Your task to perform on an android device: Search for "usb-a" on bestbuy.com, select the first entry, and add it to the cart. Image 0: 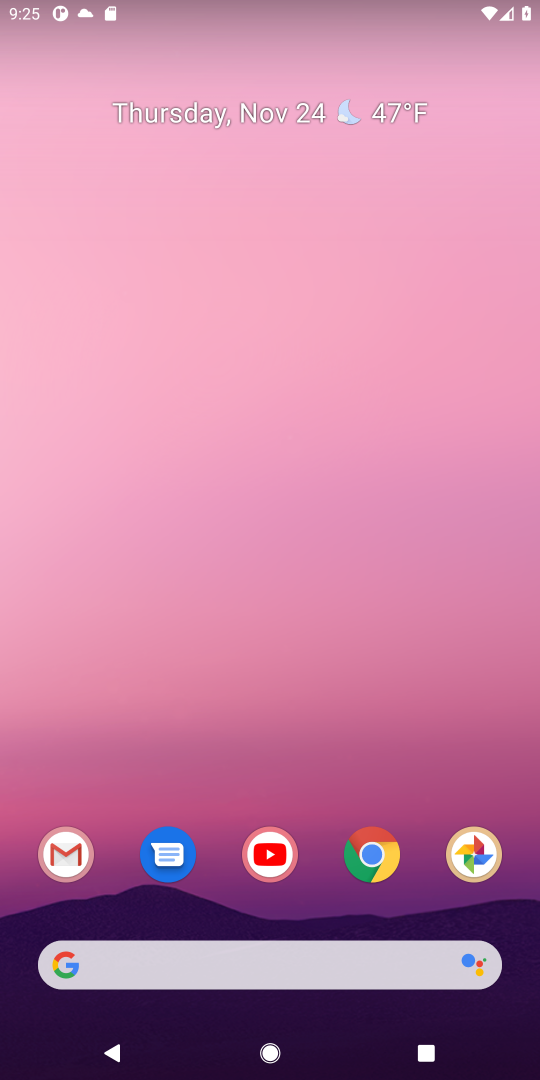
Step 0: click (375, 850)
Your task to perform on an android device: Search for "usb-a" on bestbuy.com, select the first entry, and add it to the cart. Image 1: 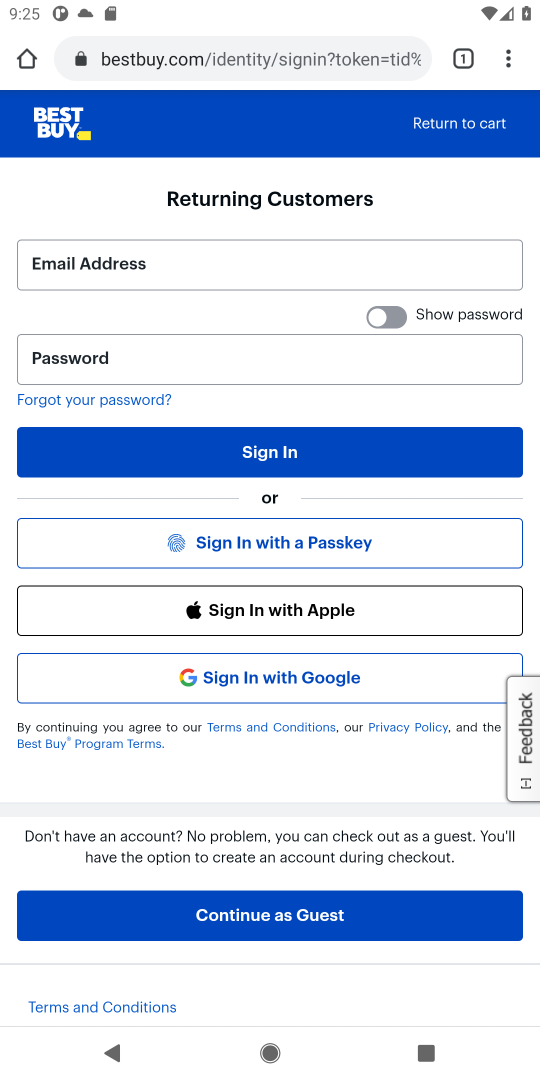
Step 1: click (472, 130)
Your task to perform on an android device: Search for "usb-a" on bestbuy.com, select the first entry, and add it to the cart. Image 2: 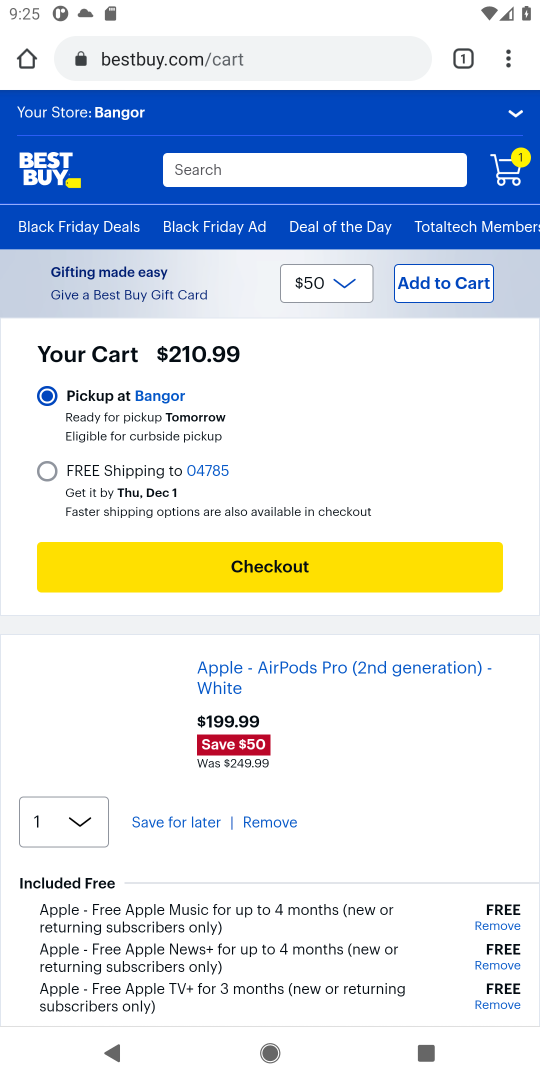
Step 2: click (270, 161)
Your task to perform on an android device: Search for "usb-a" on bestbuy.com, select the first entry, and add it to the cart. Image 3: 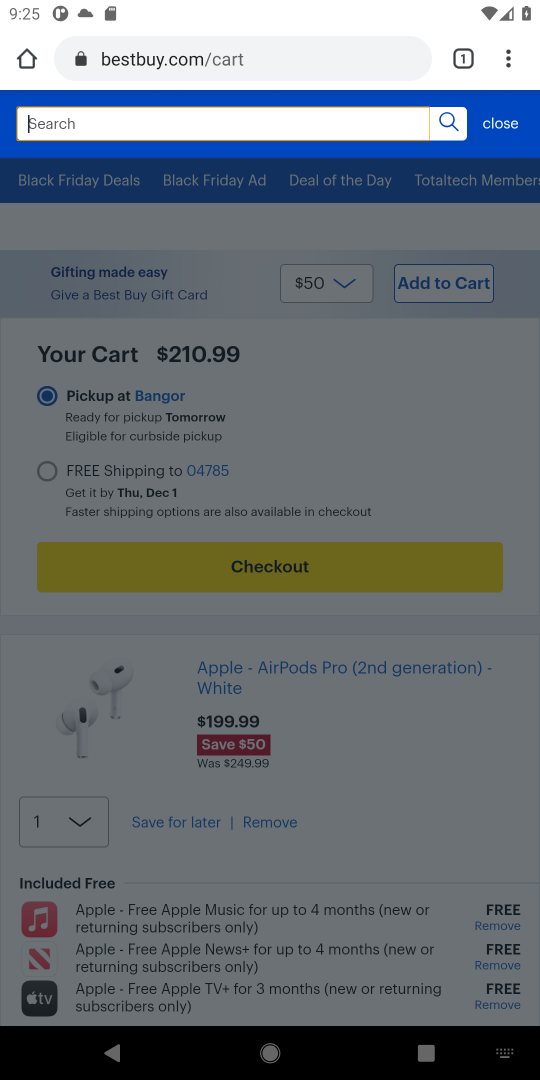
Step 3: type "usb-a"
Your task to perform on an android device: Search for "usb-a" on bestbuy.com, select the first entry, and add it to the cart. Image 4: 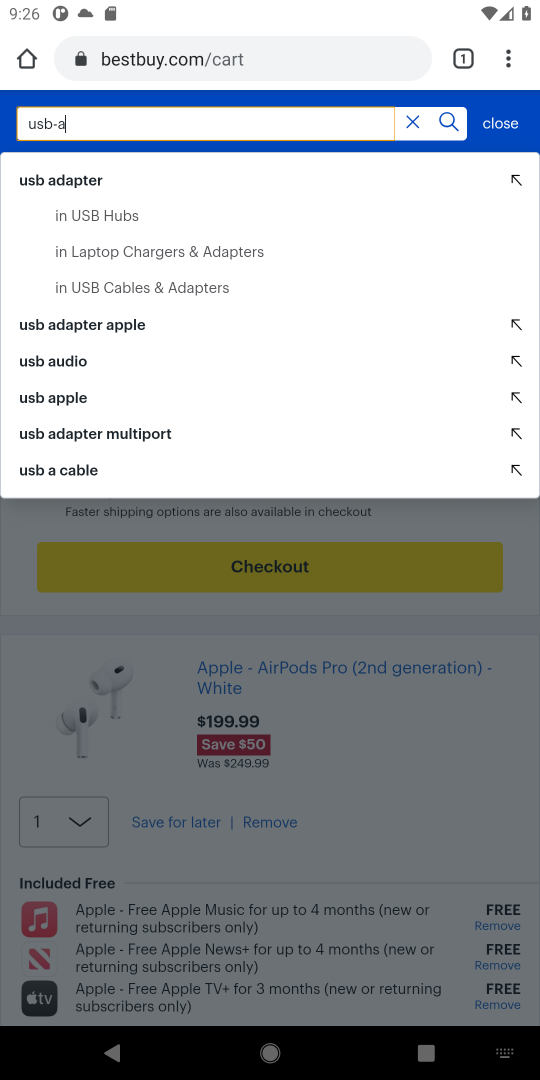
Step 4: click (448, 125)
Your task to perform on an android device: Search for "usb-a" on bestbuy.com, select the first entry, and add it to the cart. Image 5: 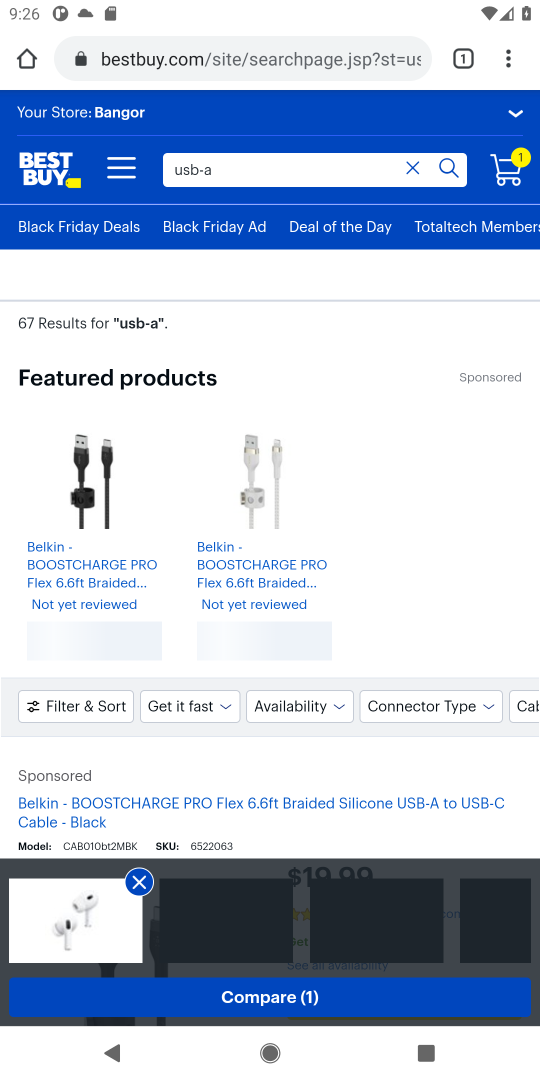
Step 5: click (139, 884)
Your task to perform on an android device: Search for "usb-a" on bestbuy.com, select the first entry, and add it to the cart. Image 6: 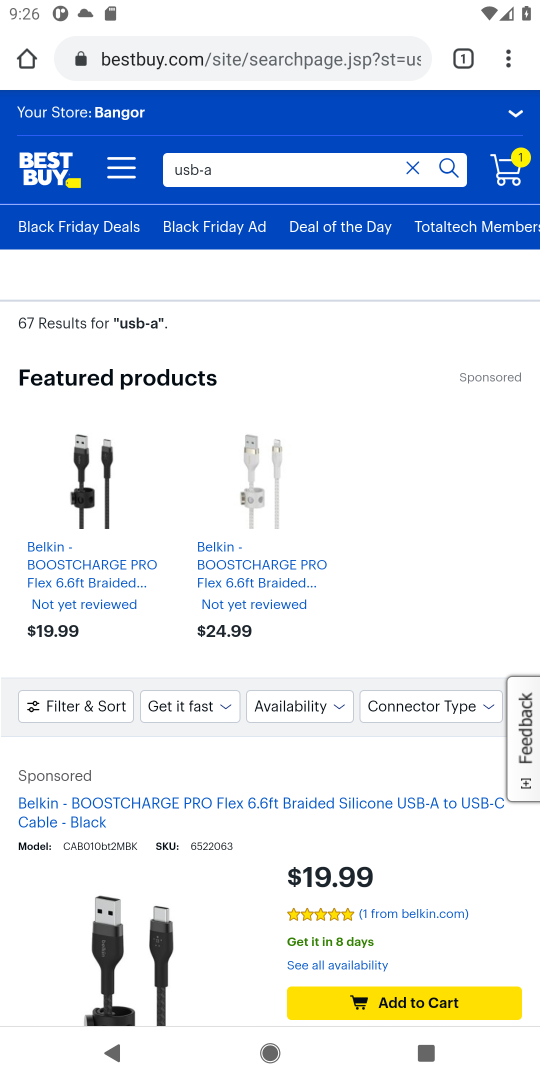
Step 6: drag from (175, 806) to (203, 450)
Your task to perform on an android device: Search for "usb-a" on bestbuy.com, select the first entry, and add it to the cart. Image 7: 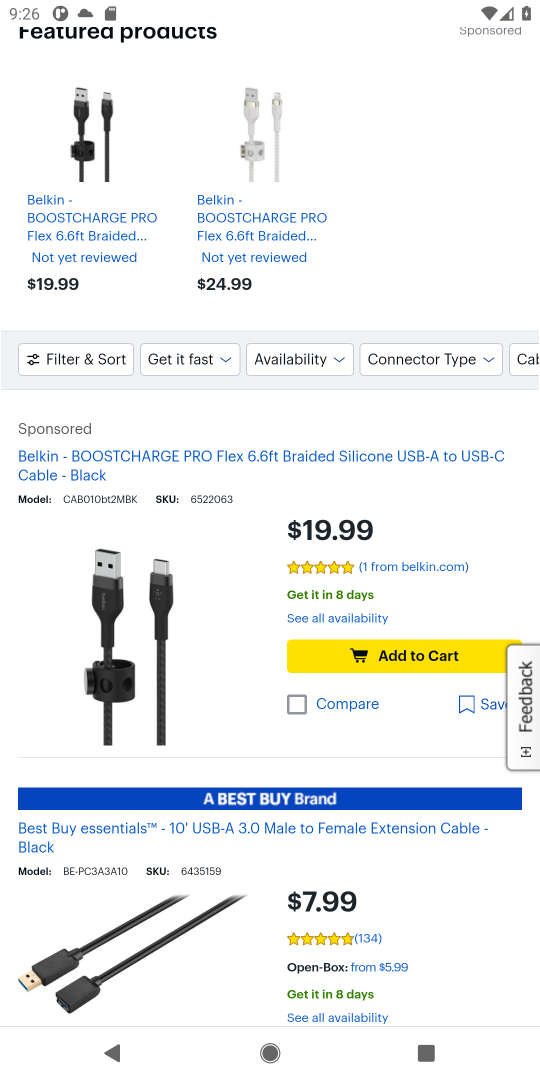
Step 7: click (397, 658)
Your task to perform on an android device: Search for "usb-a" on bestbuy.com, select the first entry, and add it to the cart. Image 8: 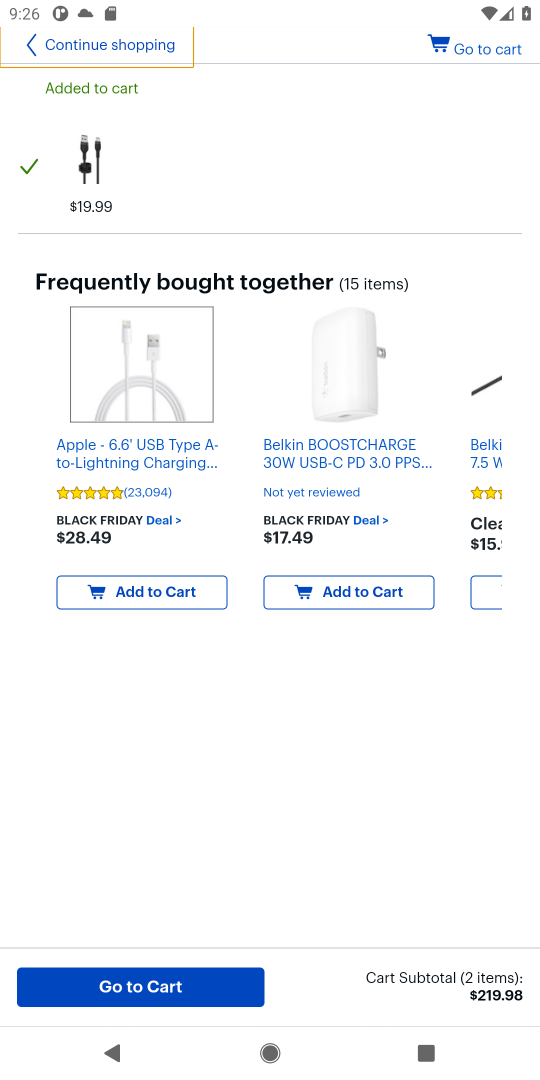
Step 8: task complete